Your task to perform on an android device: refresh tabs in the chrome app Image 0: 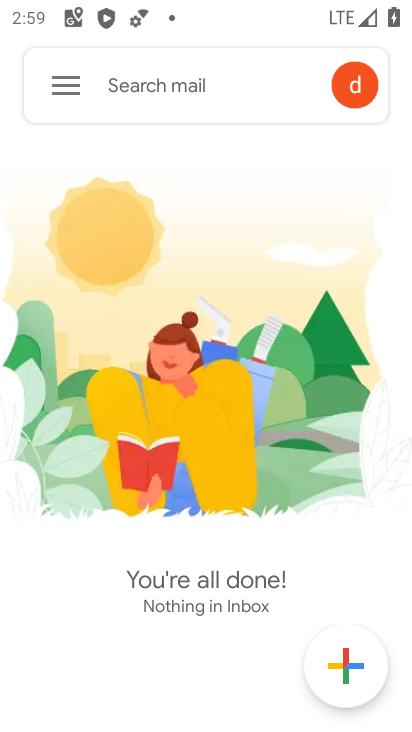
Step 0: press back button
Your task to perform on an android device: refresh tabs in the chrome app Image 1: 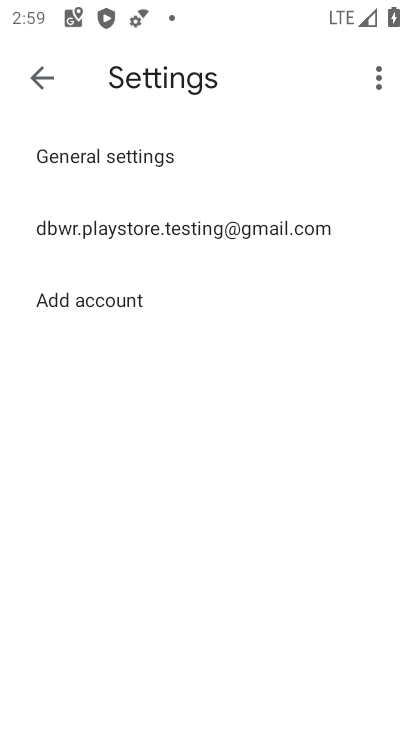
Step 1: press back button
Your task to perform on an android device: refresh tabs in the chrome app Image 2: 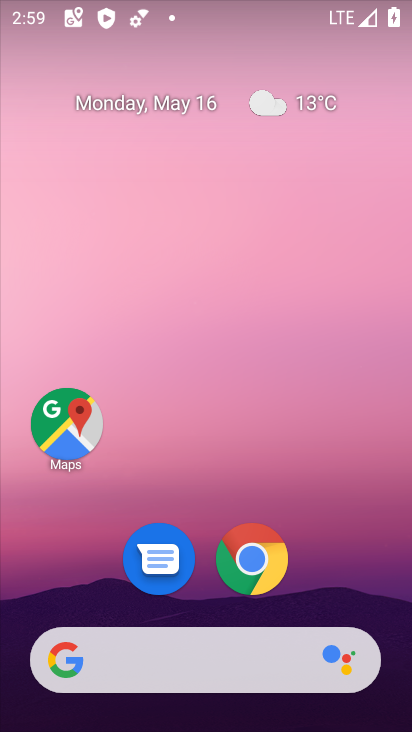
Step 2: click (234, 571)
Your task to perform on an android device: refresh tabs in the chrome app Image 3: 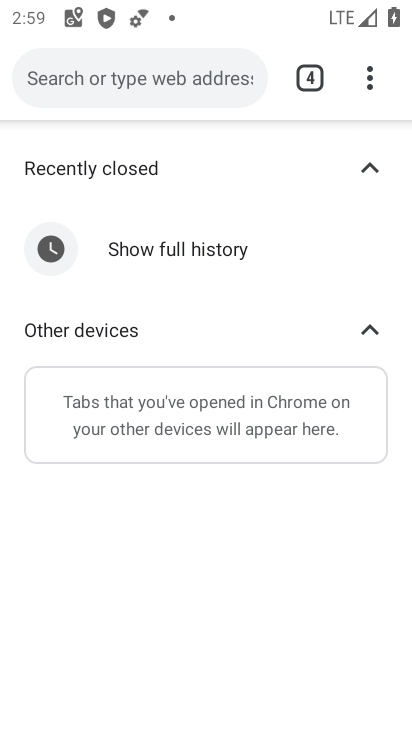
Step 3: click (372, 86)
Your task to perform on an android device: refresh tabs in the chrome app Image 4: 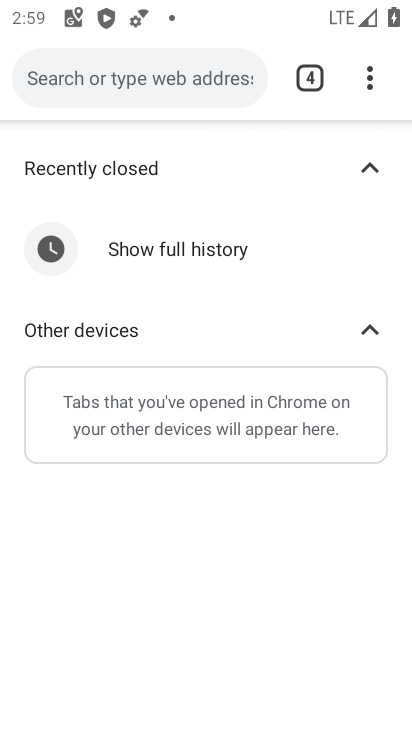
Step 4: task complete